Your task to perform on an android device: change the upload size in google photos Image 0: 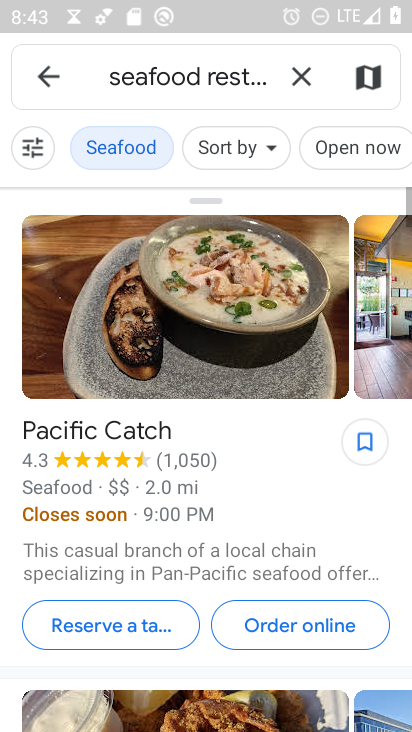
Step 0: press home button
Your task to perform on an android device: change the upload size in google photos Image 1: 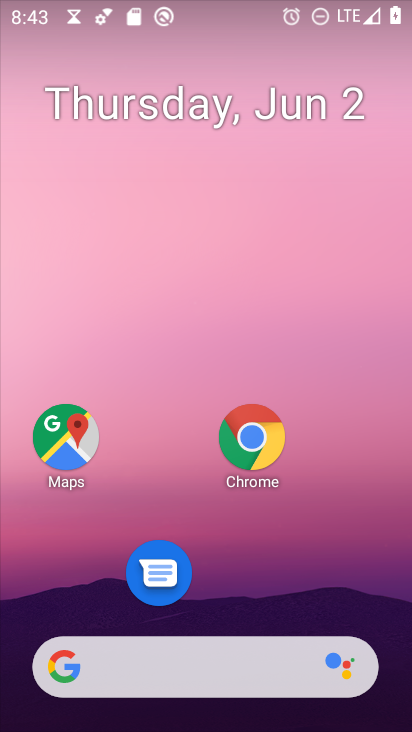
Step 1: drag from (201, 671) to (342, 181)
Your task to perform on an android device: change the upload size in google photos Image 2: 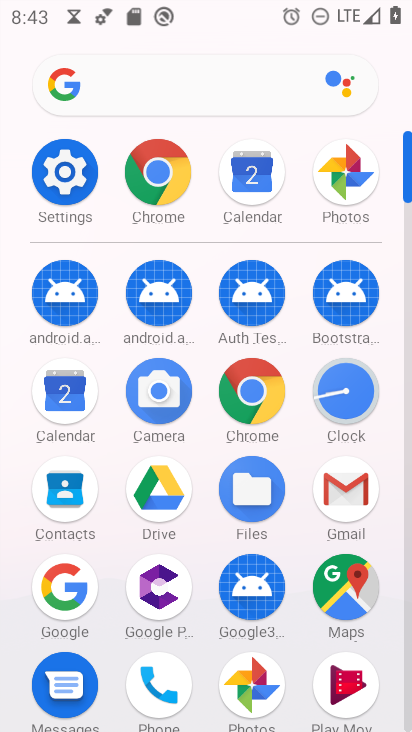
Step 2: drag from (196, 663) to (300, 409)
Your task to perform on an android device: change the upload size in google photos Image 3: 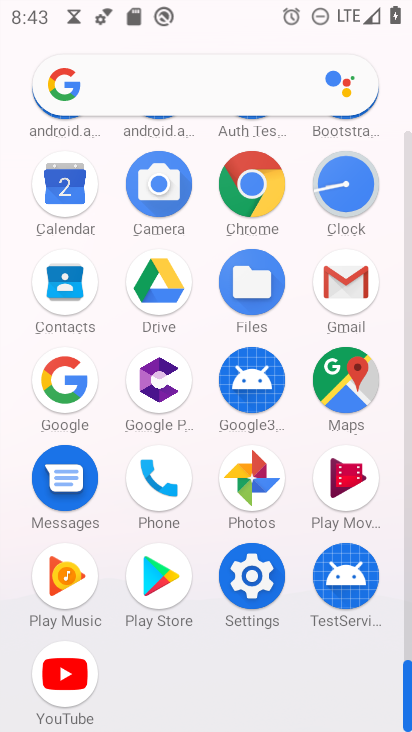
Step 3: click (257, 485)
Your task to perform on an android device: change the upload size in google photos Image 4: 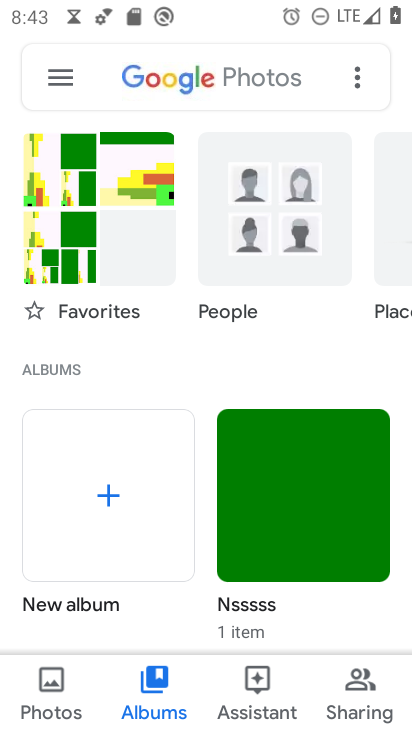
Step 4: click (67, 72)
Your task to perform on an android device: change the upload size in google photos Image 5: 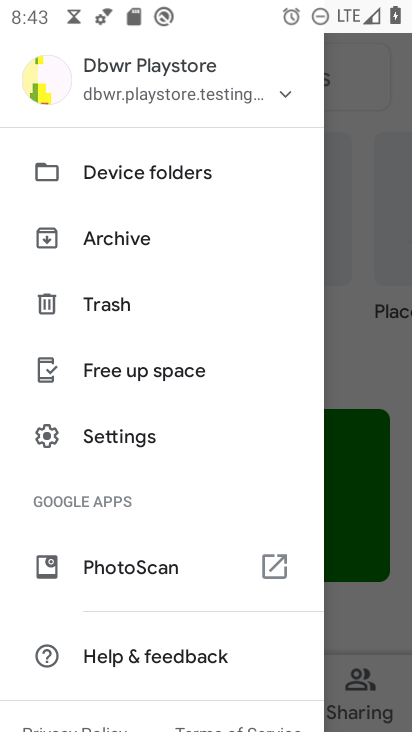
Step 5: click (123, 432)
Your task to perform on an android device: change the upload size in google photos Image 6: 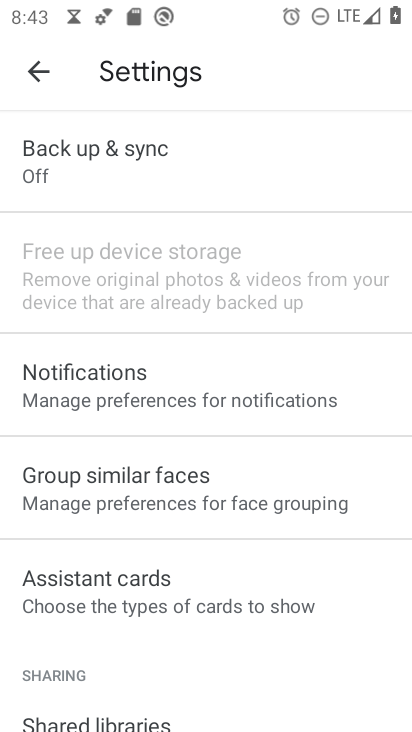
Step 6: click (128, 176)
Your task to perform on an android device: change the upload size in google photos Image 7: 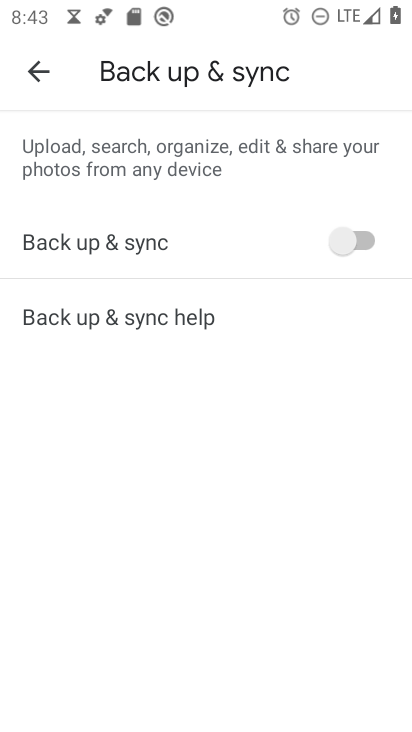
Step 7: click (366, 241)
Your task to perform on an android device: change the upload size in google photos Image 8: 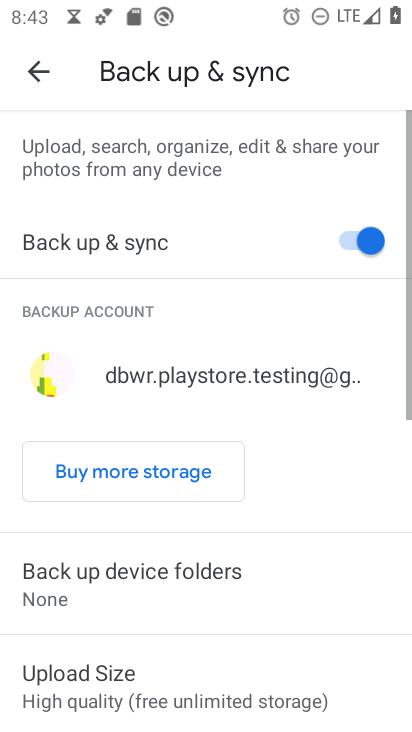
Step 8: drag from (118, 595) to (210, 266)
Your task to perform on an android device: change the upload size in google photos Image 9: 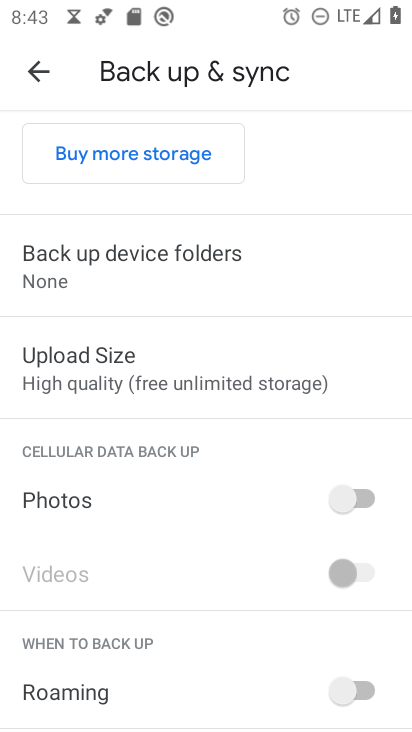
Step 9: click (100, 381)
Your task to perform on an android device: change the upload size in google photos Image 10: 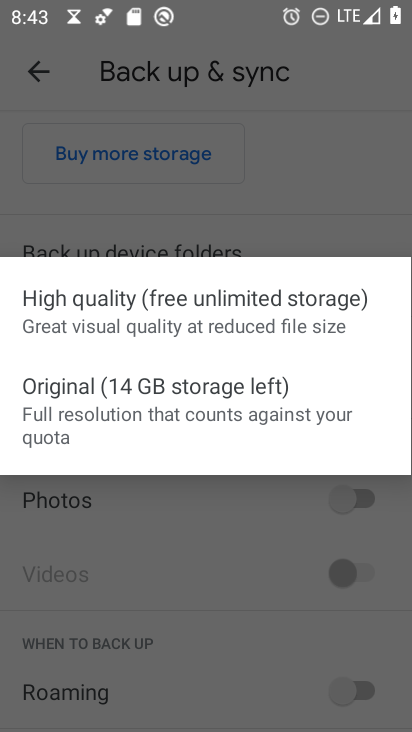
Step 10: click (59, 398)
Your task to perform on an android device: change the upload size in google photos Image 11: 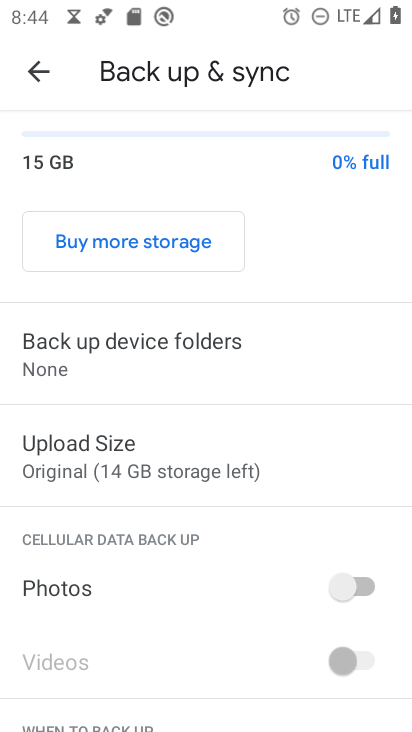
Step 11: task complete